Your task to perform on an android device: Search for sushi restaurants on Maps Image 0: 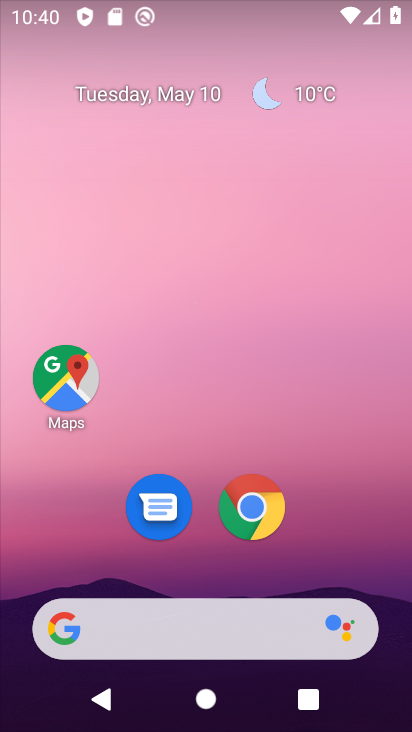
Step 0: drag from (224, 723) to (224, 148)
Your task to perform on an android device: Search for sushi restaurants on Maps Image 1: 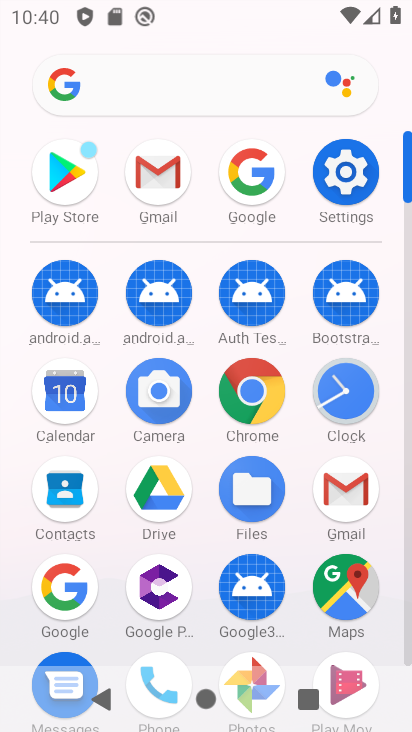
Step 1: click (342, 592)
Your task to perform on an android device: Search for sushi restaurants on Maps Image 2: 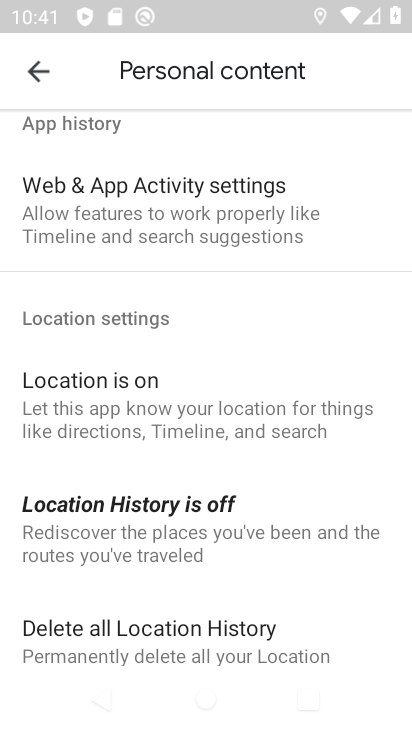
Step 2: click (39, 70)
Your task to perform on an android device: Search for sushi restaurants on Maps Image 3: 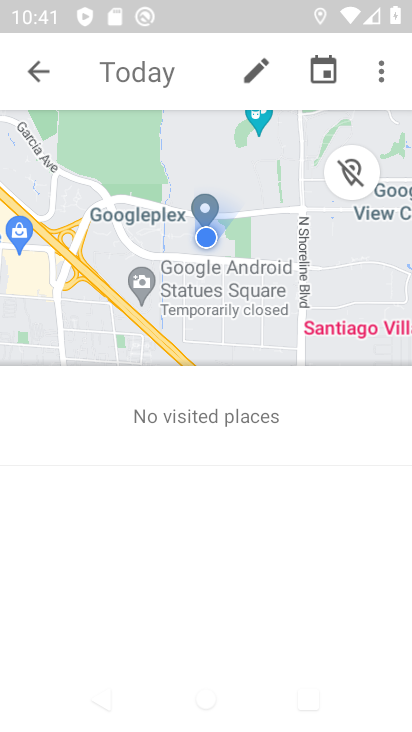
Step 3: click (30, 65)
Your task to perform on an android device: Search for sushi restaurants on Maps Image 4: 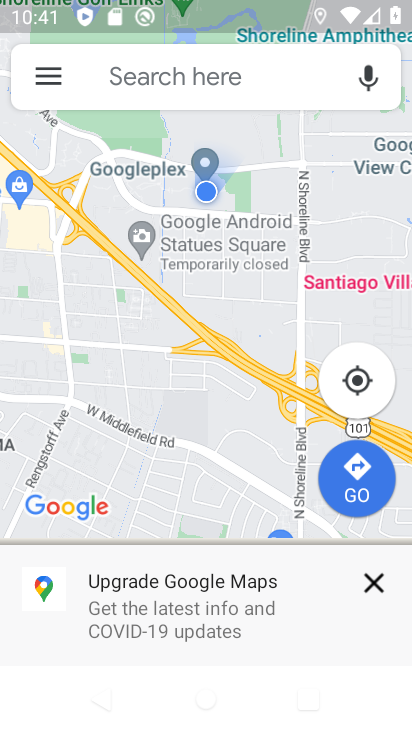
Step 4: click (160, 76)
Your task to perform on an android device: Search for sushi restaurants on Maps Image 5: 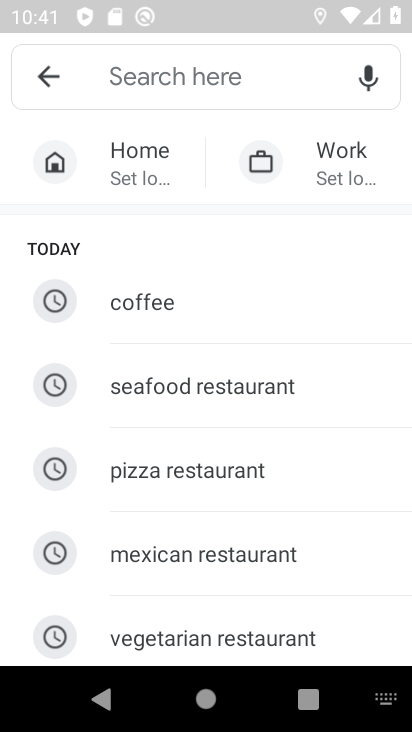
Step 5: type "sushi restaurants"
Your task to perform on an android device: Search for sushi restaurants on Maps Image 6: 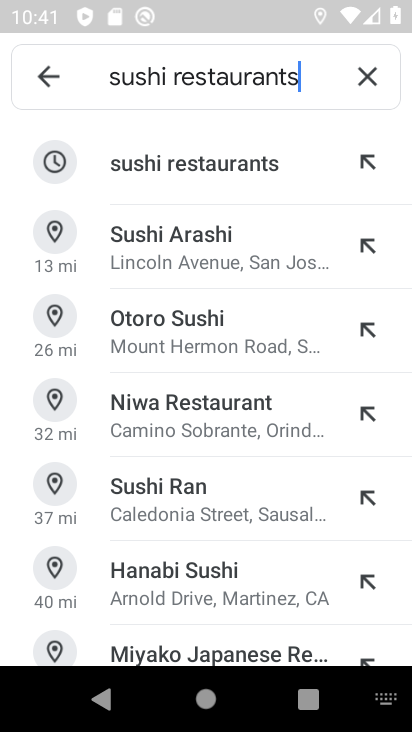
Step 6: click (194, 159)
Your task to perform on an android device: Search for sushi restaurants on Maps Image 7: 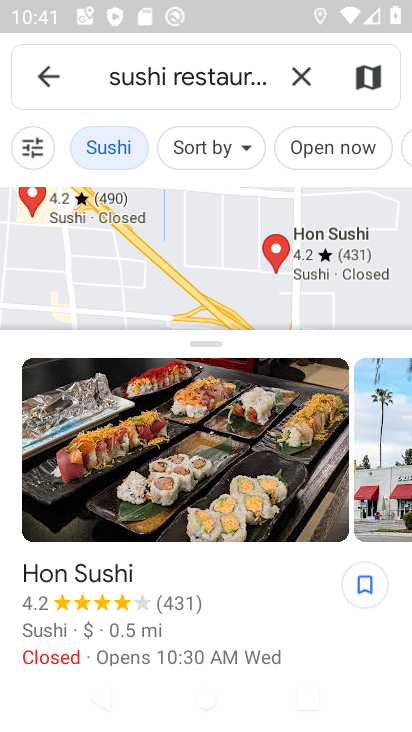
Step 7: task complete